Your task to perform on an android device: open a bookmark in the chrome app Image 0: 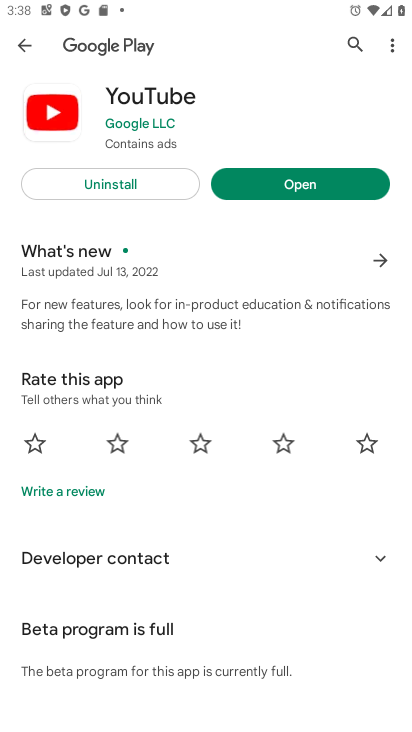
Step 0: press home button
Your task to perform on an android device: open a bookmark in the chrome app Image 1: 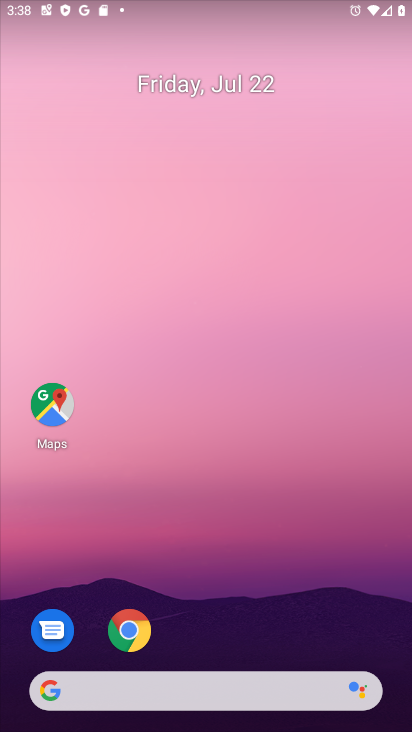
Step 1: click (130, 623)
Your task to perform on an android device: open a bookmark in the chrome app Image 2: 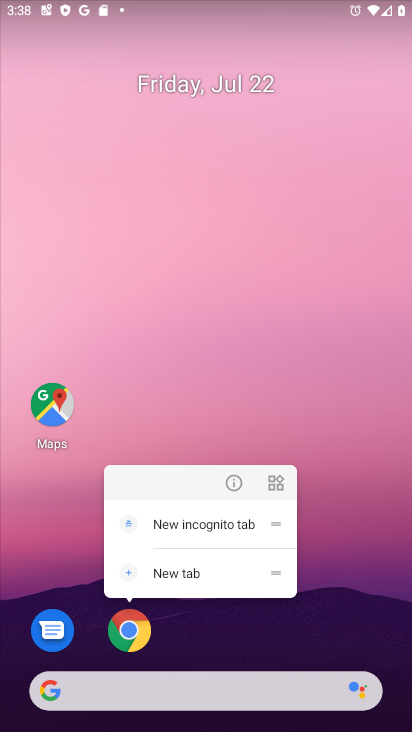
Step 2: click (128, 642)
Your task to perform on an android device: open a bookmark in the chrome app Image 3: 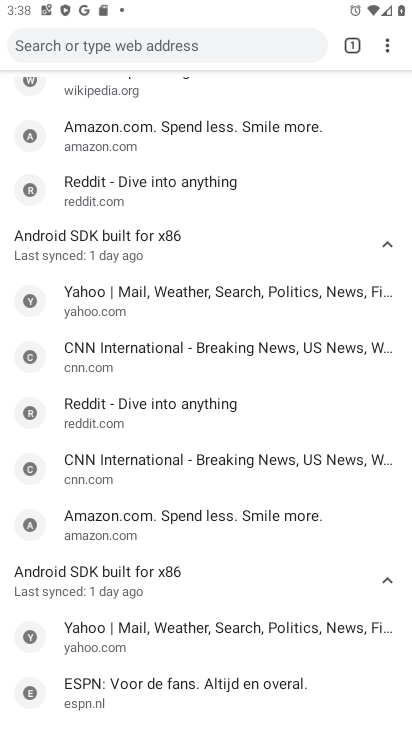
Step 3: drag from (394, 41) to (299, 173)
Your task to perform on an android device: open a bookmark in the chrome app Image 4: 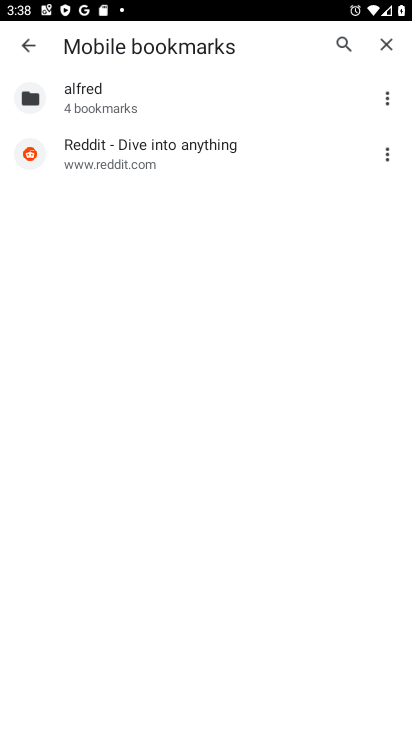
Step 4: click (167, 160)
Your task to perform on an android device: open a bookmark in the chrome app Image 5: 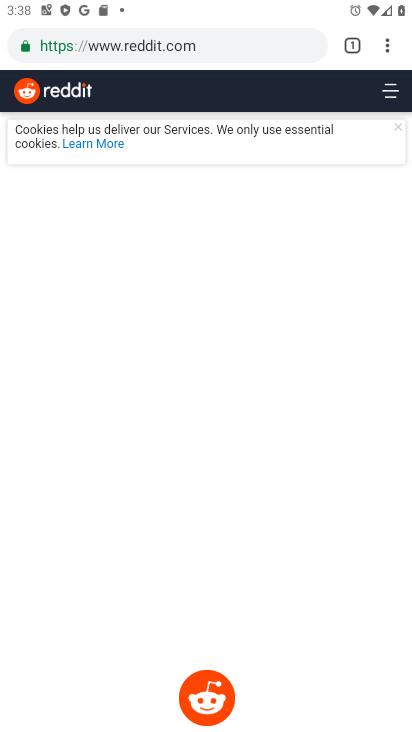
Step 5: task complete